Your task to perform on an android device: Open the stopwatch Image 0: 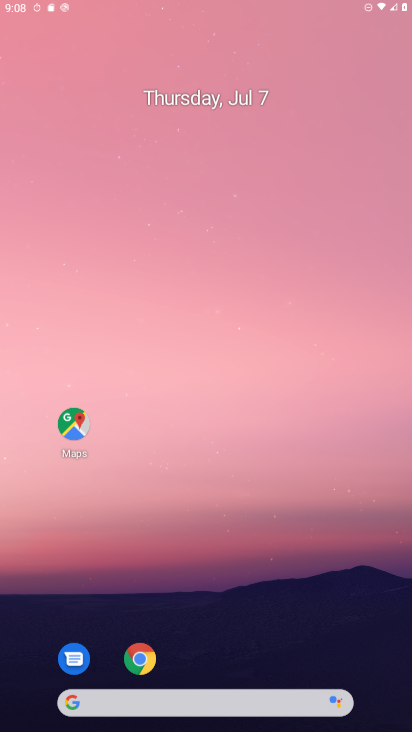
Step 0: drag from (314, 408) to (223, 55)
Your task to perform on an android device: Open the stopwatch Image 1: 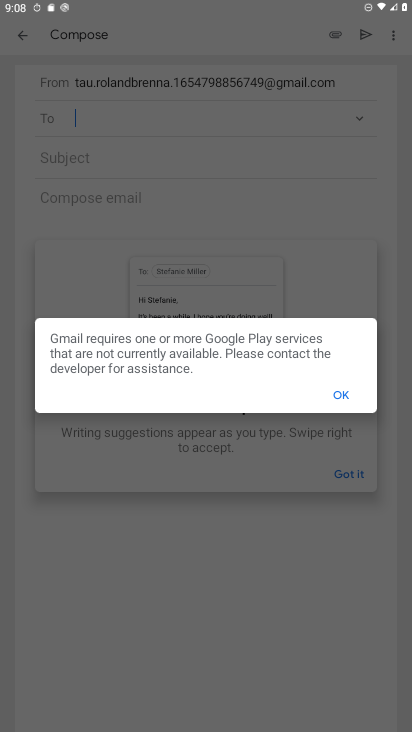
Step 1: press home button
Your task to perform on an android device: Open the stopwatch Image 2: 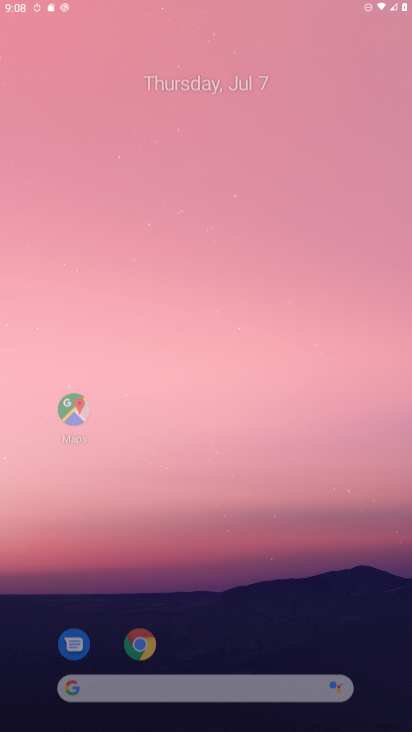
Step 2: drag from (382, 711) to (224, 56)
Your task to perform on an android device: Open the stopwatch Image 3: 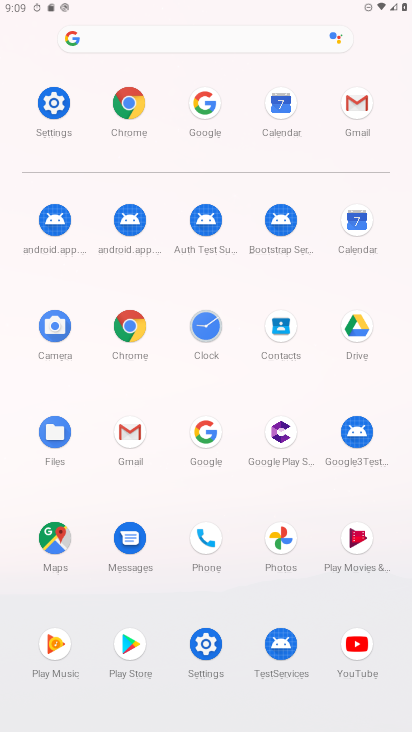
Step 3: click (200, 320)
Your task to perform on an android device: Open the stopwatch Image 4: 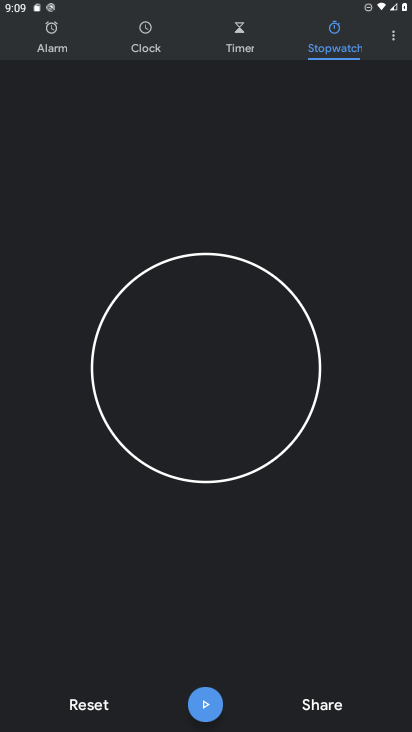
Step 4: task complete